Your task to perform on an android device: turn off priority inbox in the gmail app Image 0: 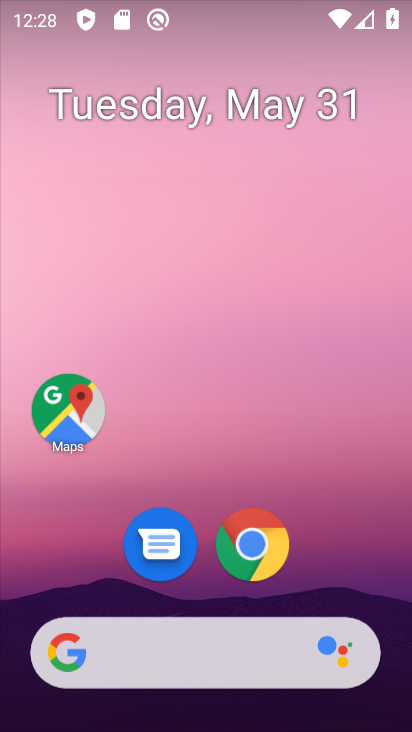
Step 0: drag from (101, 473) to (190, 58)
Your task to perform on an android device: turn off priority inbox in the gmail app Image 1: 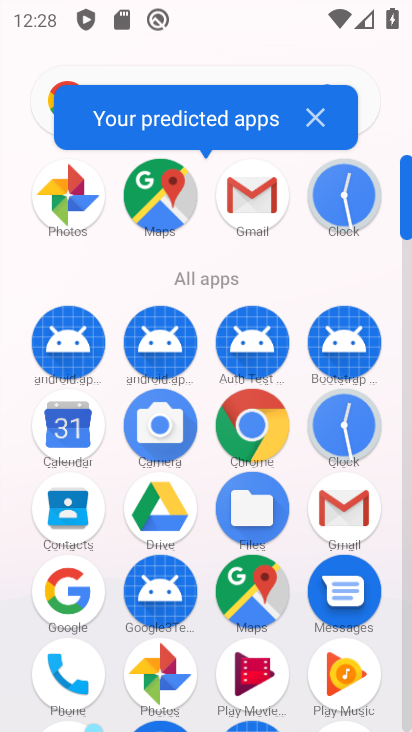
Step 1: click (366, 527)
Your task to perform on an android device: turn off priority inbox in the gmail app Image 2: 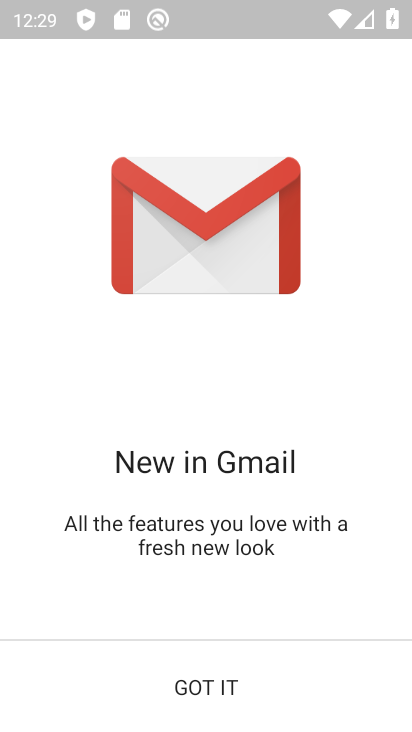
Step 2: click (207, 711)
Your task to perform on an android device: turn off priority inbox in the gmail app Image 3: 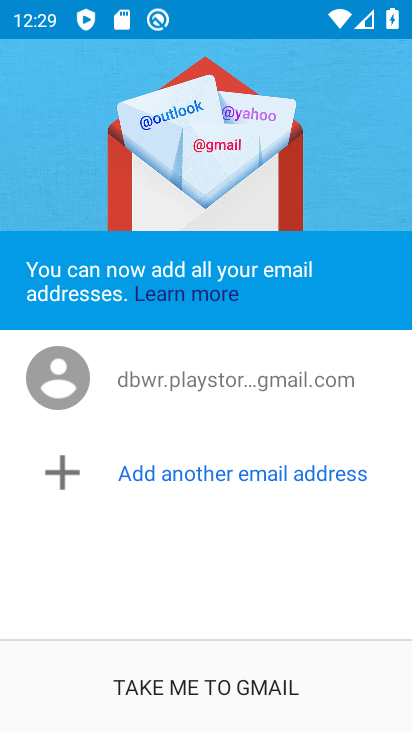
Step 3: click (208, 709)
Your task to perform on an android device: turn off priority inbox in the gmail app Image 4: 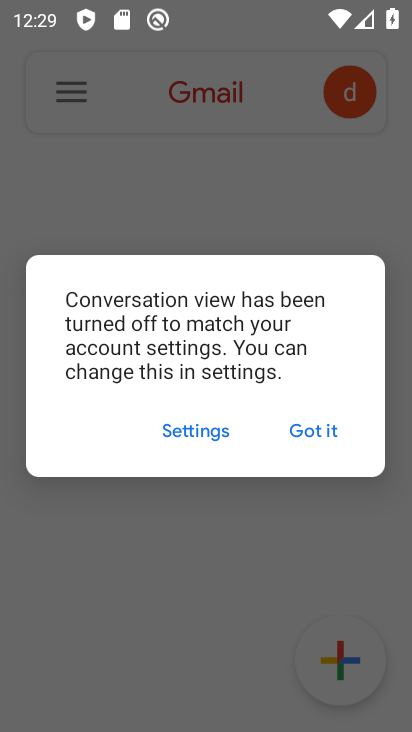
Step 4: click (329, 428)
Your task to perform on an android device: turn off priority inbox in the gmail app Image 5: 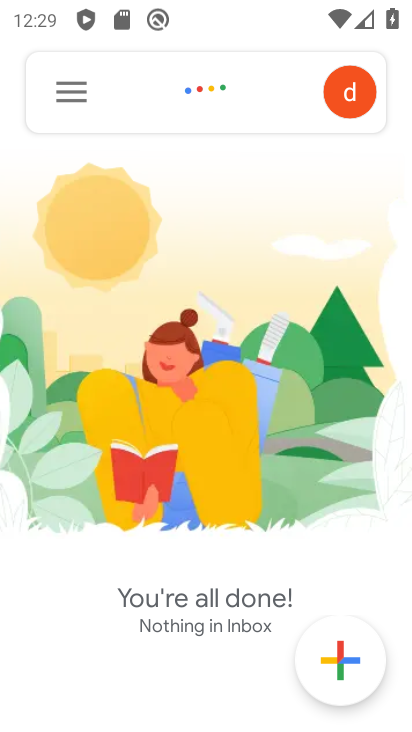
Step 5: click (77, 99)
Your task to perform on an android device: turn off priority inbox in the gmail app Image 6: 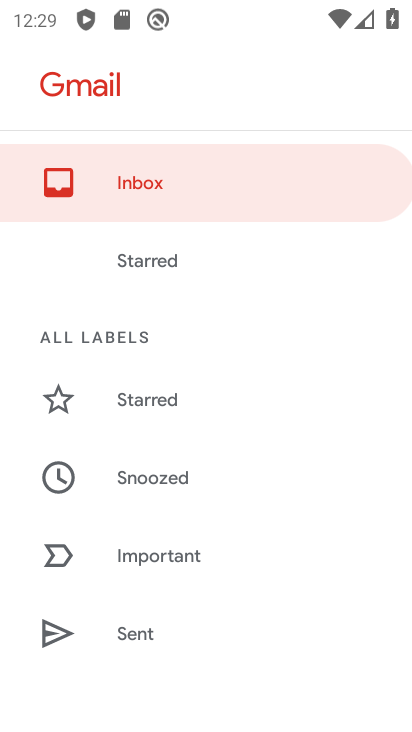
Step 6: drag from (132, 609) to (246, 242)
Your task to perform on an android device: turn off priority inbox in the gmail app Image 7: 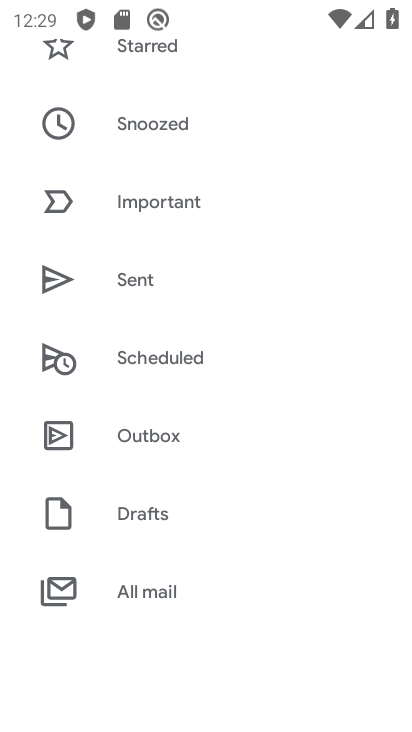
Step 7: drag from (203, 582) to (284, 194)
Your task to perform on an android device: turn off priority inbox in the gmail app Image 8: 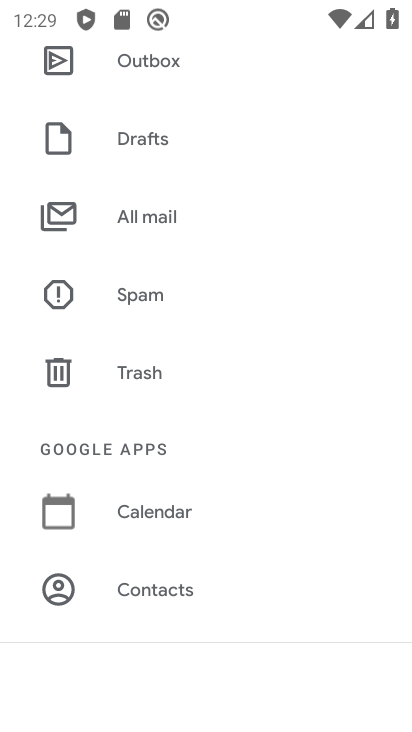
Step 8: drag from (245, 570) to (331, 122)
Your task to perform on an android device: turn off priority inbox in the gmail app Image 9: 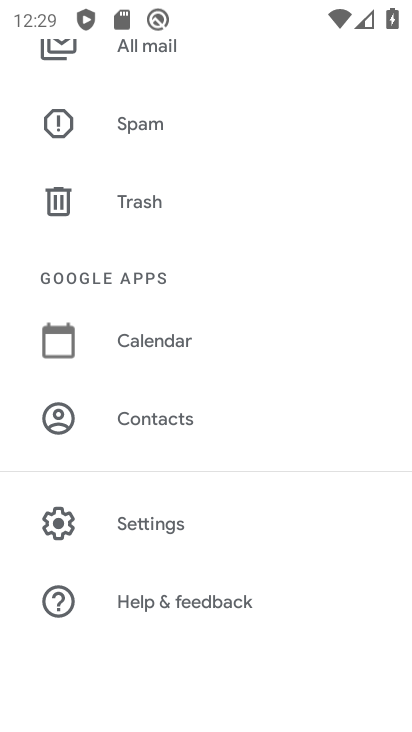
Step 9: click (195, 526)
Your task to perform on an android device: turn off priority inbox in the gmail app Image 10: 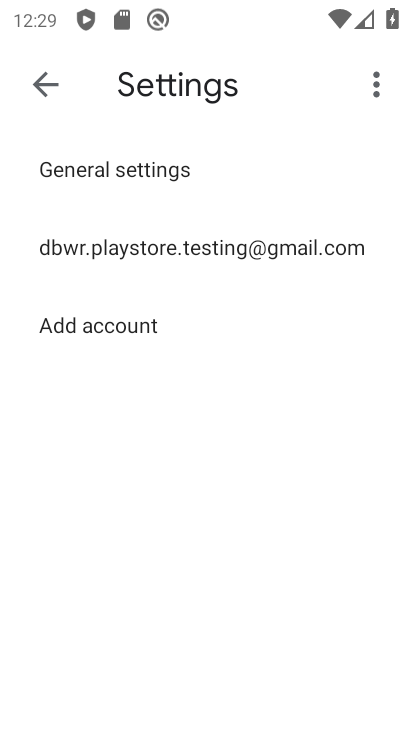
Step 10: click (315, 266)
Your task to perform on an android device: turn off priority inbox in the gmail app Image 11: 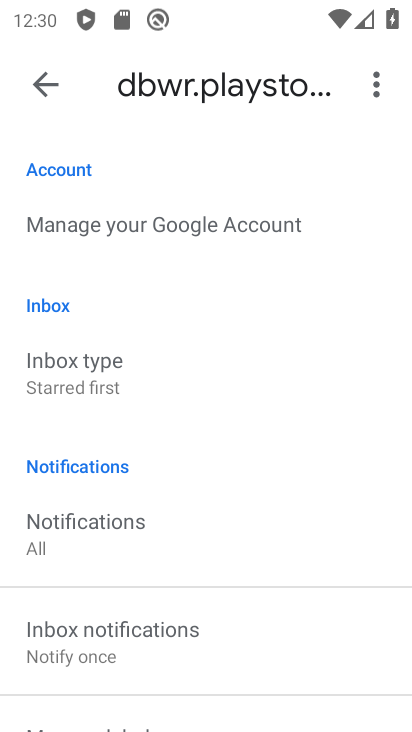
Step 11: drag from (197, 609) to (232, 438)
Your task to perform on an android device: turn off priority inbox in the gmail app Image 12: 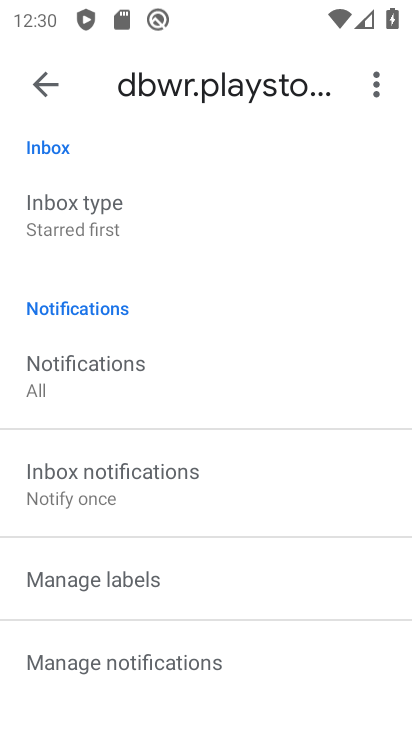
Step 12: click (160, 209)
Your task to perform on an android device: turn off priority inbox in the gmail app Image 13: 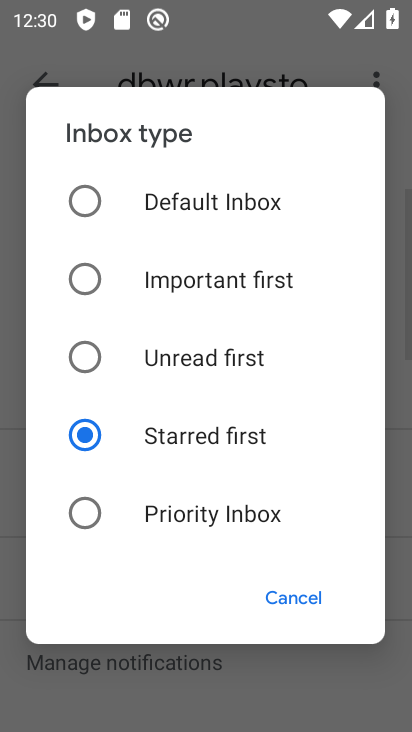
Step 13: task complete